Your task to perform on an android device: Go to calendar. Show me events next week Image 0: 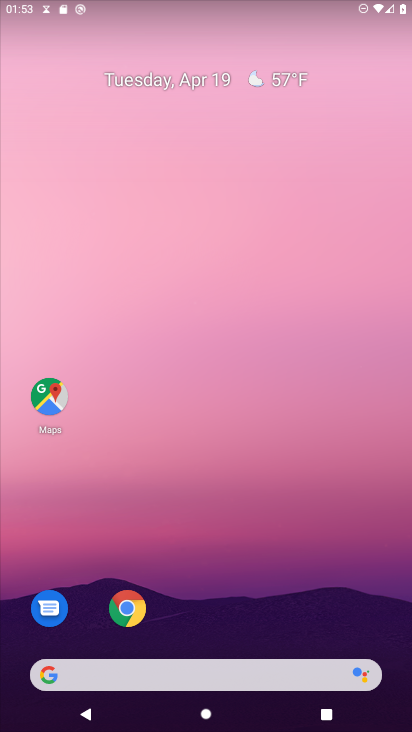
Step 0: drag from (223, 600) to (69, 114)
Your task to perform on an android device: Go to calendar. Show me events next week Image 1: 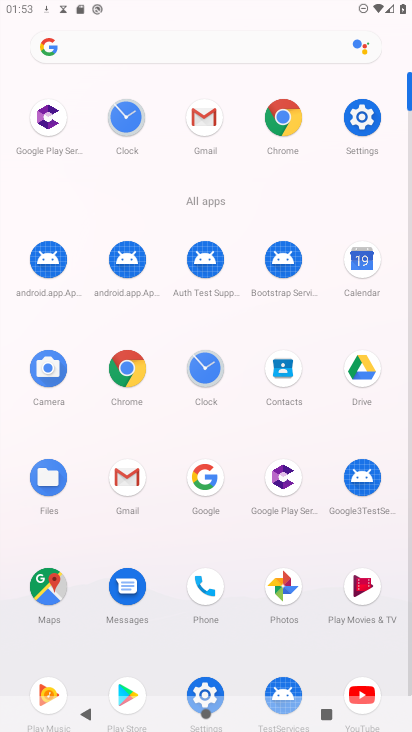
Step 1: click (363, 261)
Your task to perform on an android device: Go to calendar. Show me events next week Image 2: 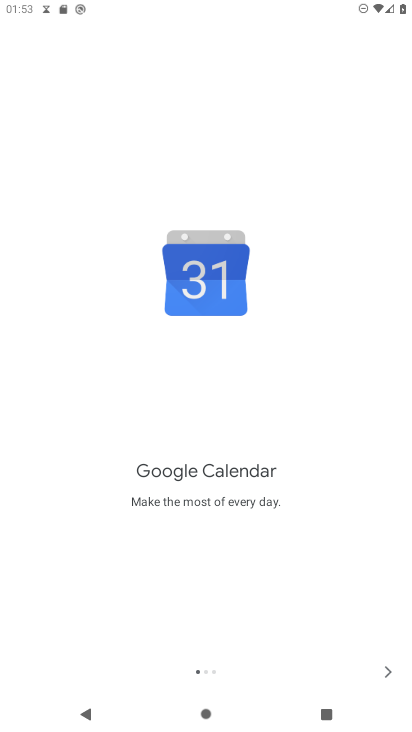
Step 2: click (389, 666)
Your task to perform on an android device: Go to calendar. Show me events next week Image 3: 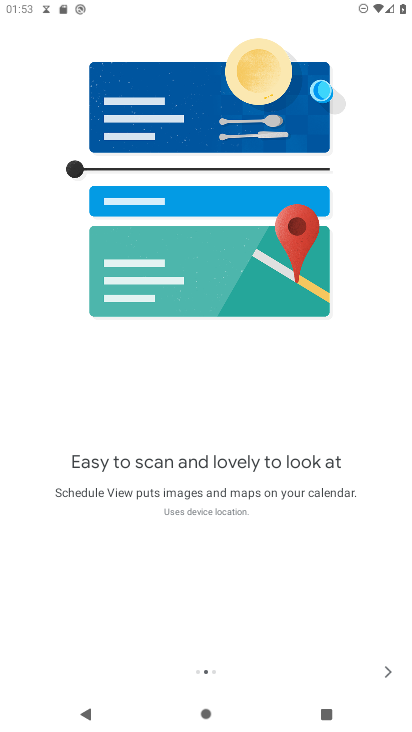
Step 3: click (389, 666)
Your task to perform on an android device: Go to calendar. Show me events next week Image 4: 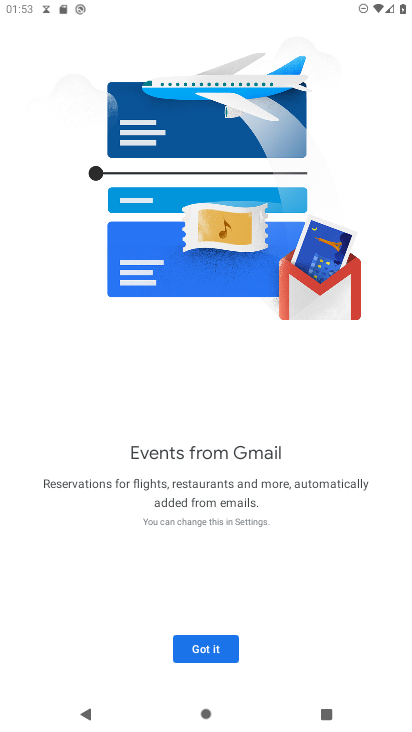
Step 4: click (191, 646)
Your task to perform on an android device: Go to calendar. Show me events next week Image 5: 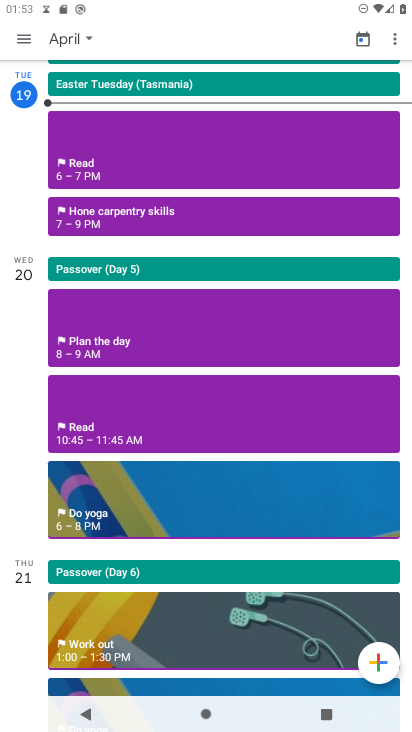
Step 5: click (72, 43)
Your task to perform on an android device: Go to calendar. Show me events next week Image 6: 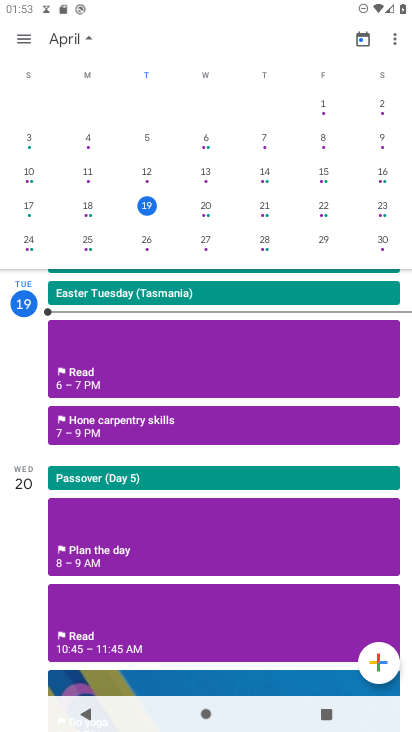
Step 6: click (29, 242)
Your task to perform on an android device: Go to calendar. Show me events next week Image 7: 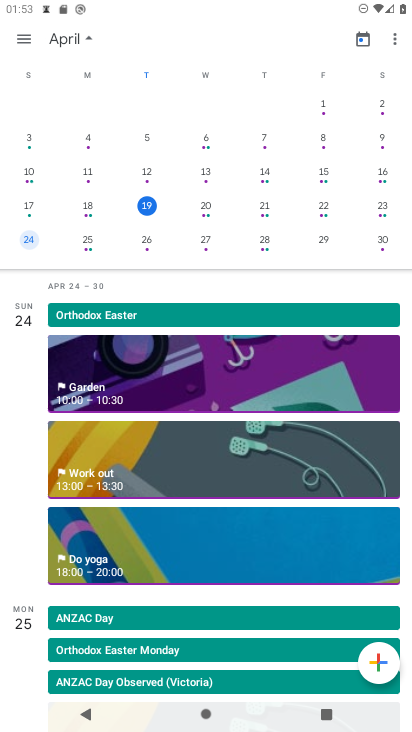
Step 7: click (23, 33)
Your task to perform on an android device: Go to calendar. Show me events next week Image 8: 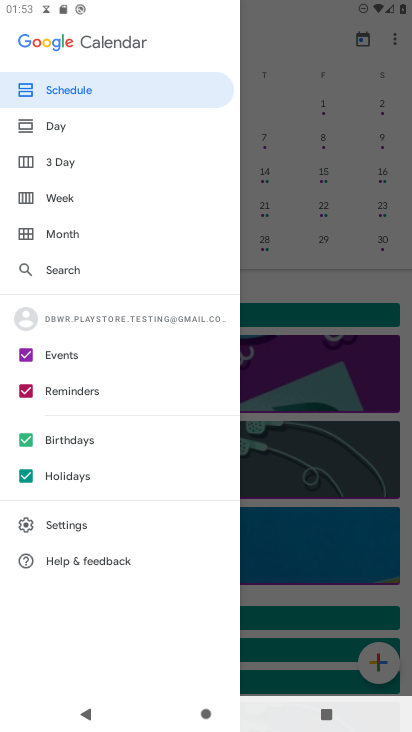
Step 8: click (48, 201)
Your task to perform on an android device: Go to calendar. Show me events next week Image 9: 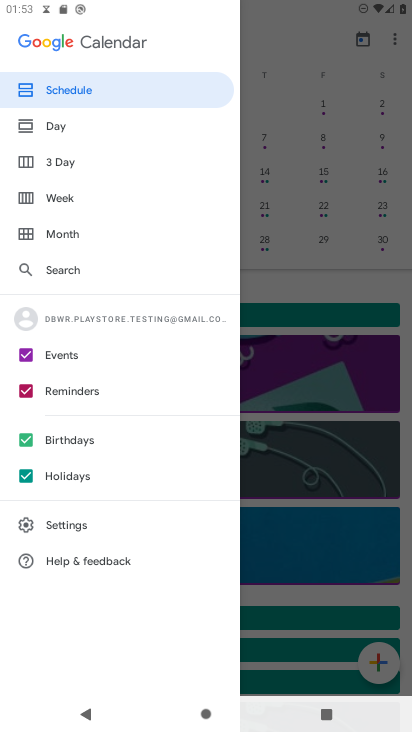
Step 9: click (58, 197)
Your task to perform on an android device: Go to calendar. Show me events next week Image 10: 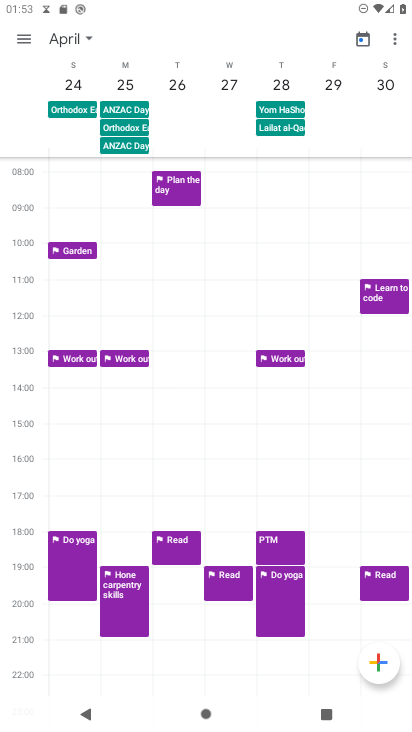
Step 10: task complete